Your task to perform on an android device: stop showing notifications on the lock screen Image 0: 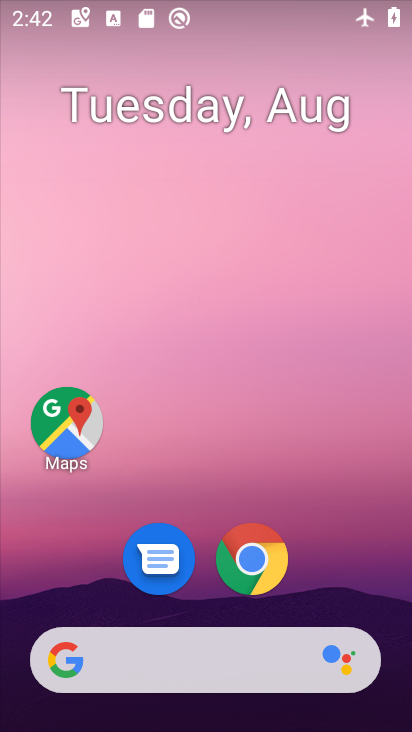
Step 0: drag from (206, 497) to (206, 115)
Your task to perform on an android device: stop showing notifications on the lock screen Image 1: 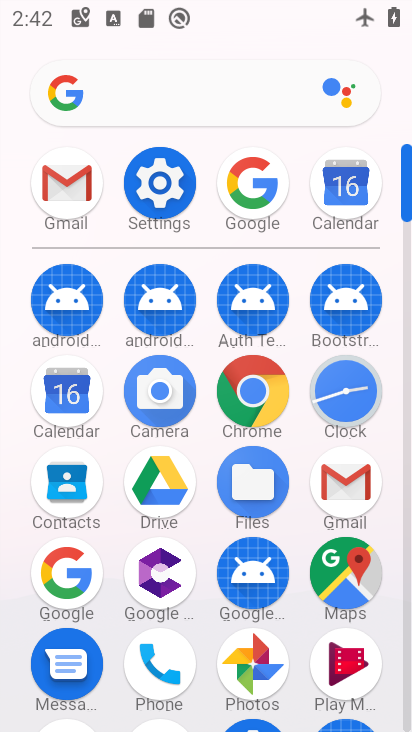
Step 1: click (175, 194)
Your task to perform on an android device: stop showing notifications on the lock screen Image 2: 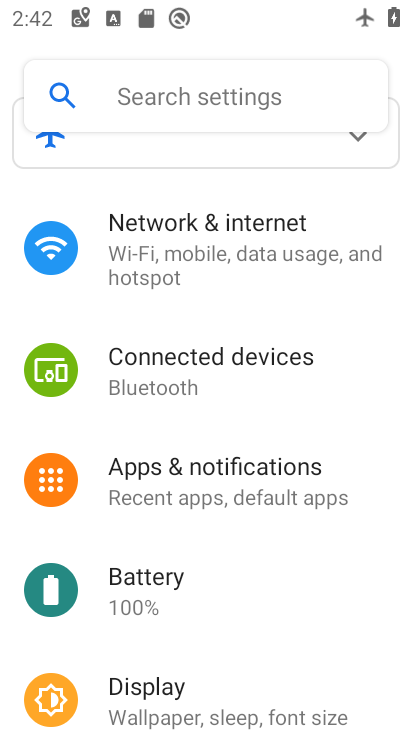
Step 2: click (239, 495)
Your task to perform on an android device: stop showing notifications on the lock screen Image 3: 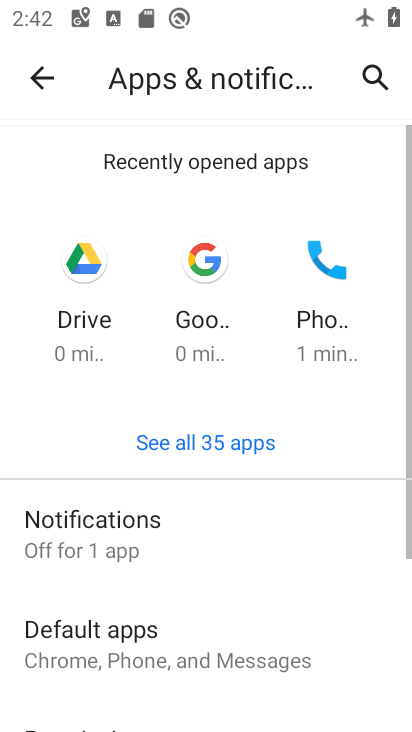
Step 3: click (146, 531)
Your task to perform on an android device: stop showing notifications on the lock screen Image 4: 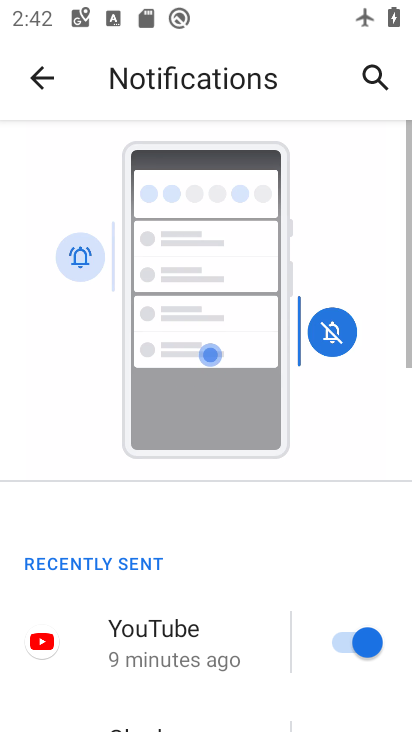
Step 4: drag from (254, 653) to (269, 217)
Your task to perform on an android device: stop showing notifications on the lock screen Image 5: 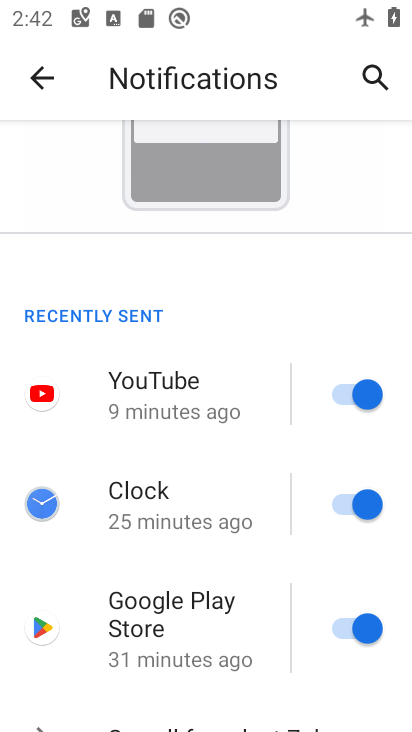
Step 5: drag from (277, 638) to (276, 289)
Your task to perform on an android device: stop showing notifications on the lock screen Image 6: 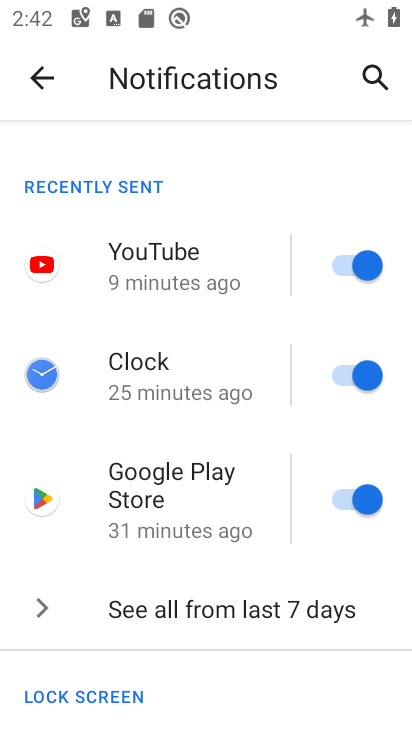
Step 6: drag from (261, 649) to (271, 359)
Your task to perform on an android device: stop showing notifications on the lock screen Image 7: 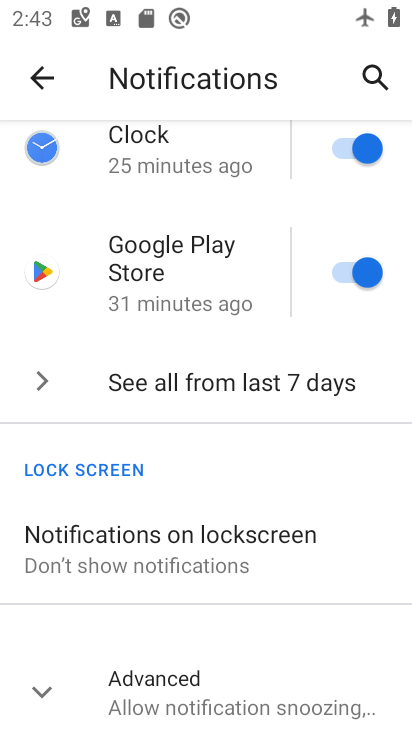
Step 7: click (207, 551)
Your task to perform on an android device: stop showing notifications on the lock screen Image 8: 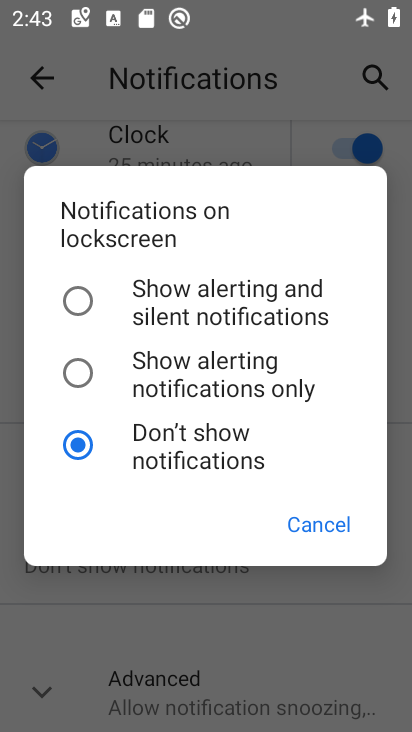
Step 8: task complete